Your task to perform on an android device: Search for a coffee table on IKEA Image 0: 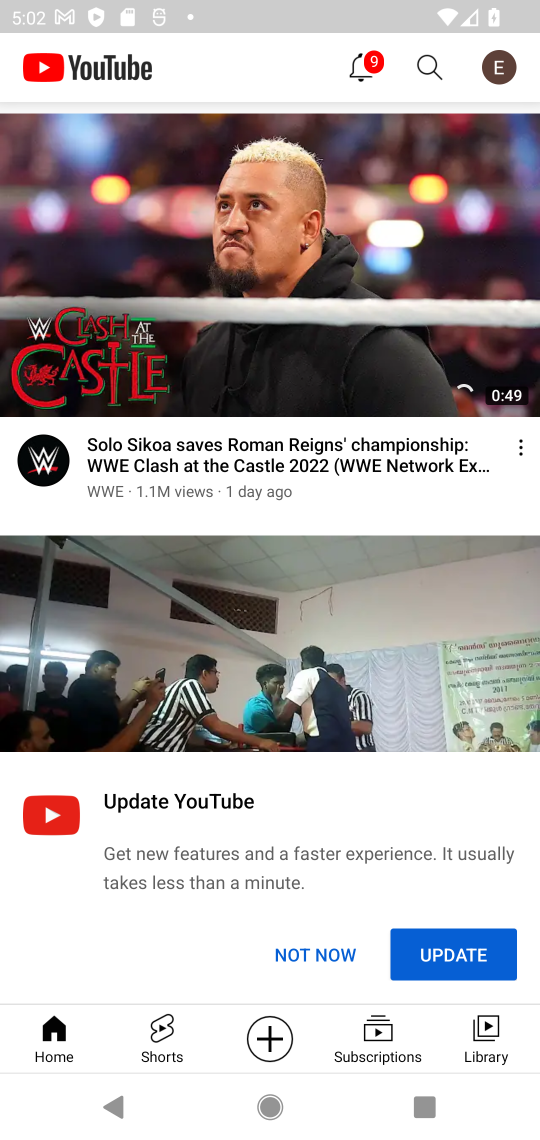
Step 0: press home button
Your task to perform on an android device: Search for a coffee table on IKEA Image 1: 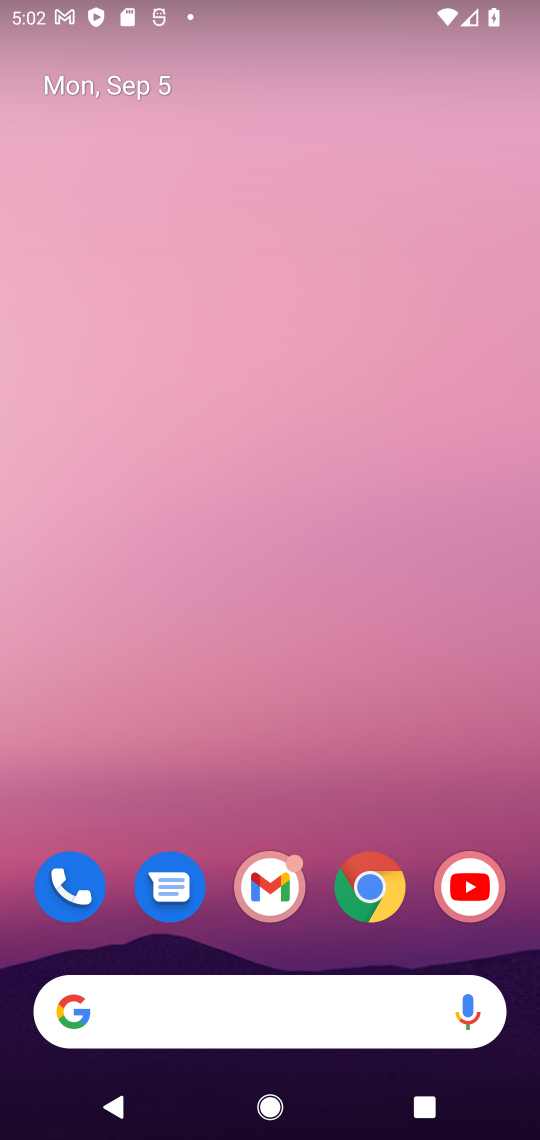
Step 1: drag from (310, 521) to (123, 1)
Your task to perform on an android device: Search for a coffee table on IKEA Image 2: 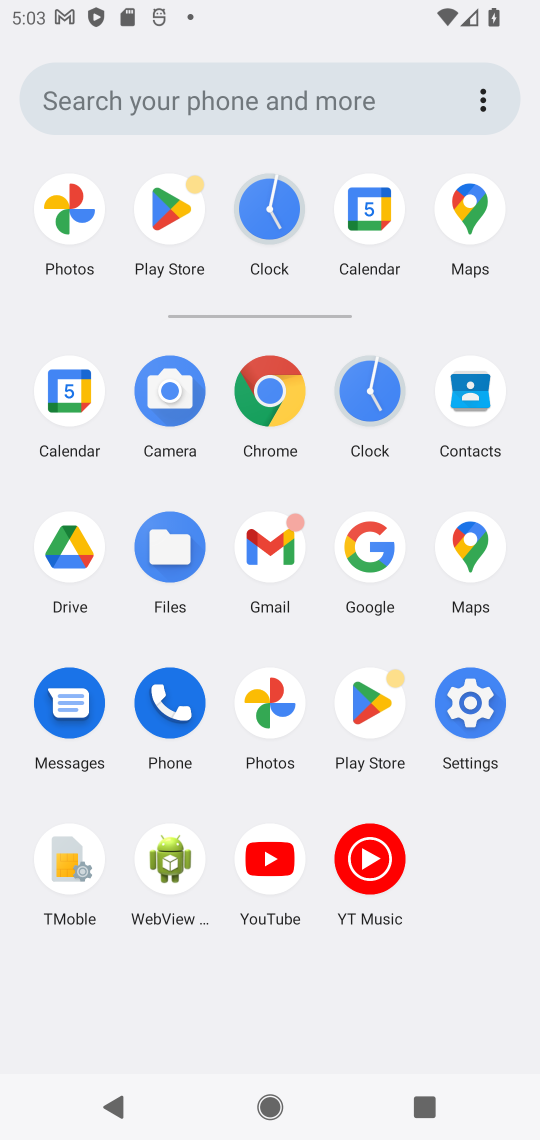
Step 2: click (264, 392)
Your task to perform on an android device: Search for a coffee table on IKEA Image 3: 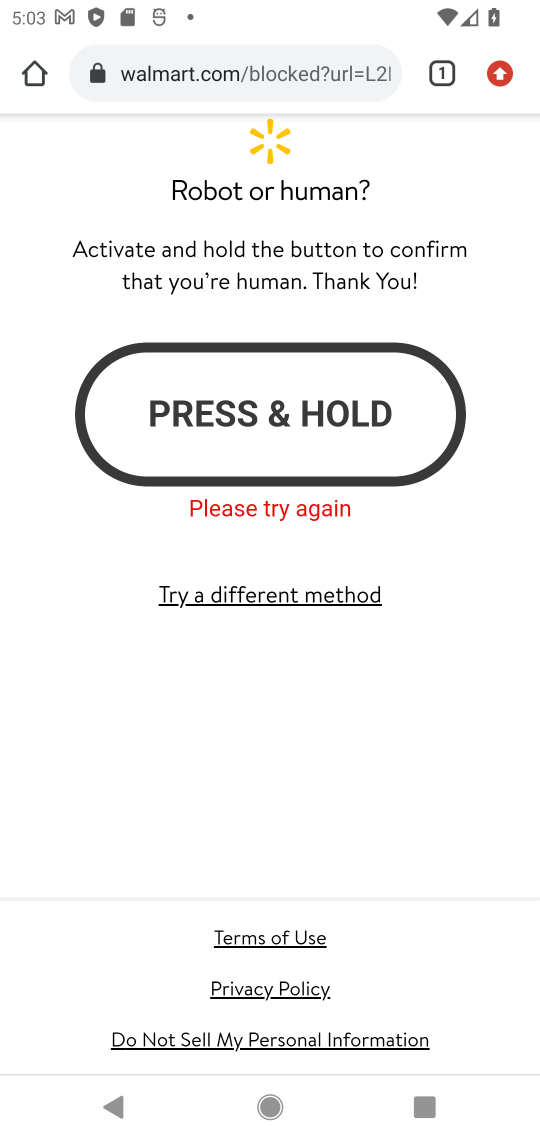
Step 3: click (331, 64)
Your task to perform on an android device: Search for a coffee table on IKEA Image 4: 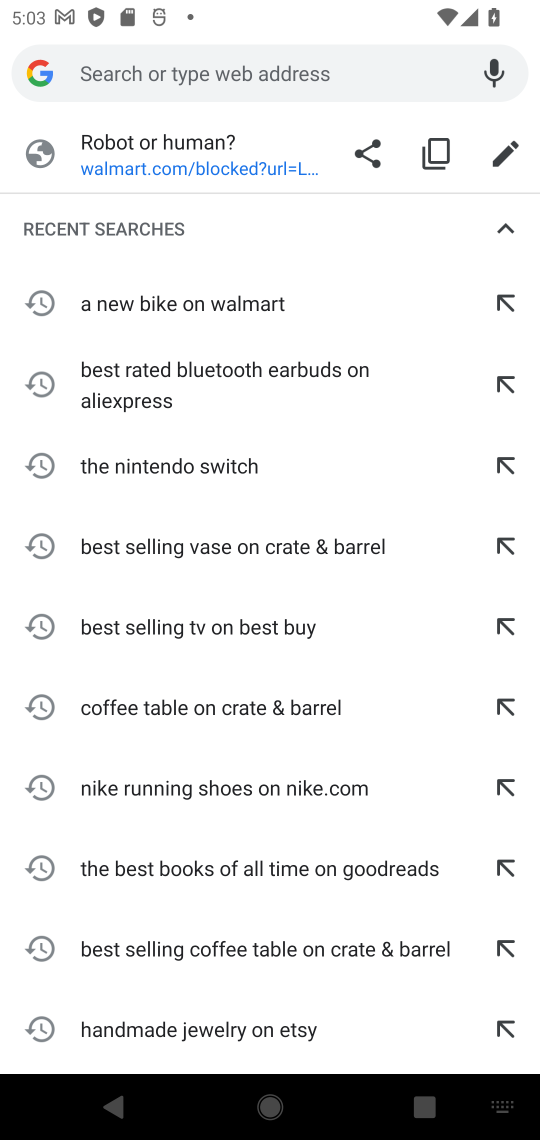
Step 4: type "coffee table on lKEA"
Your task to perform on an android device: Search for a coffee table on IKEA Image 5: 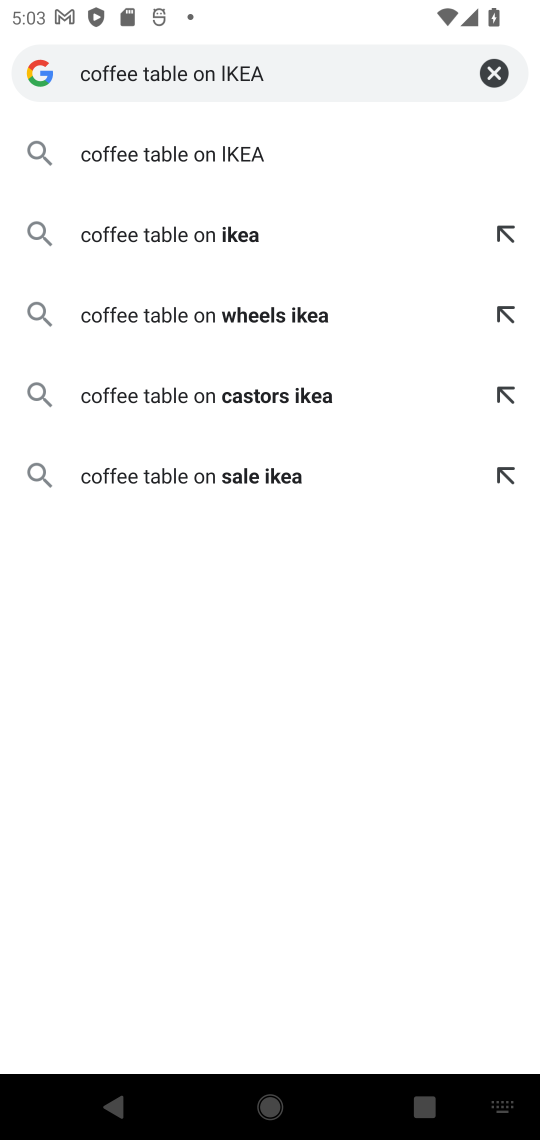
Step 5: press enter
Your task to perform on an android device: Search for a coffee table on IKEA Image 6: 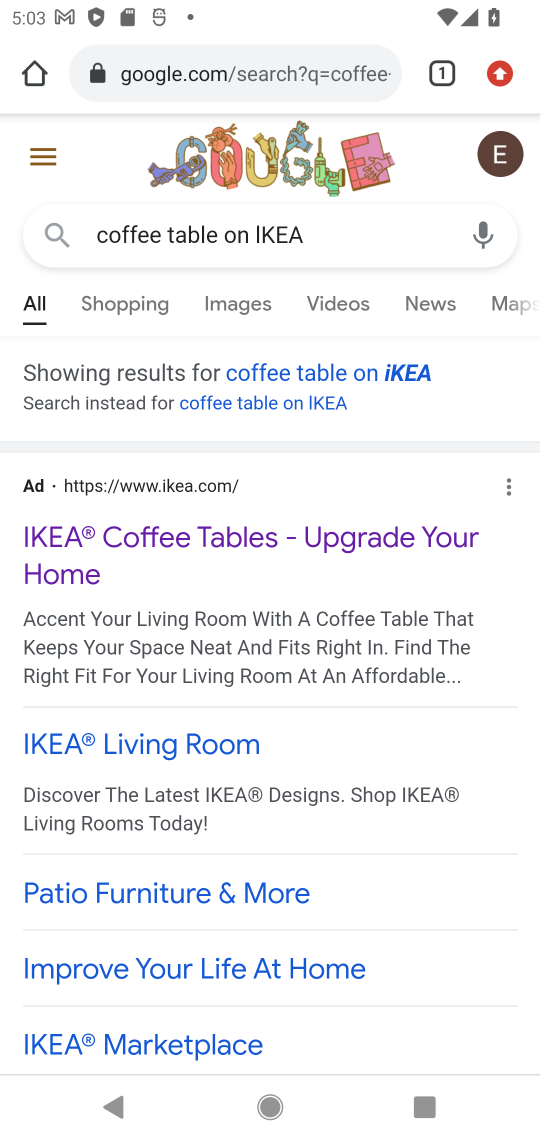
Step 6: drag from (336, 806) to (267, 94)
Your task to perform on an android device: Search for a coffee table on IKEA Image 7: 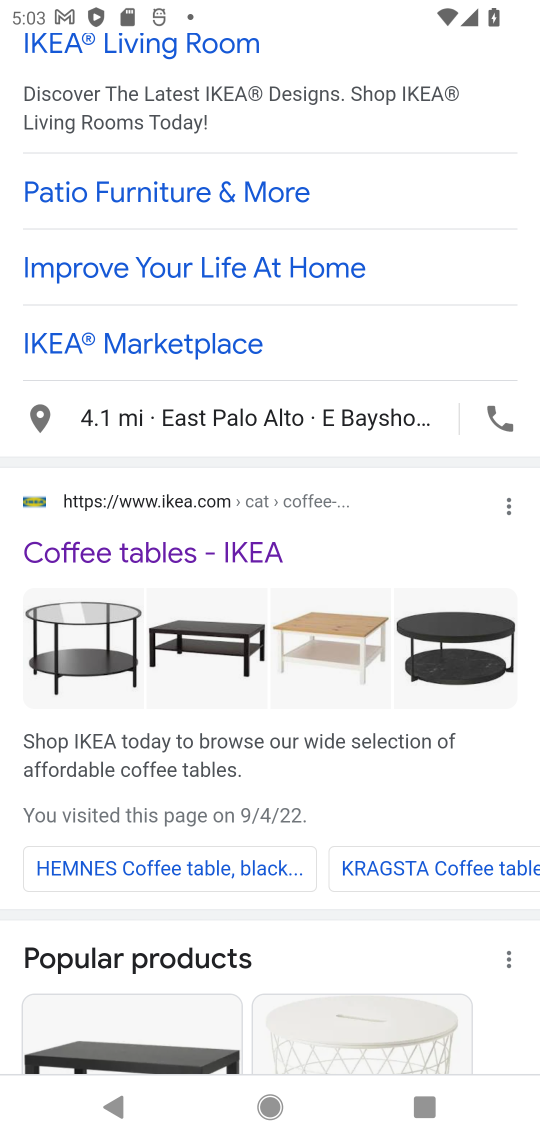
Step 7: click (205, 557)
Your task to perform on an android device: Search for a coffee table on IKEA Image 8: 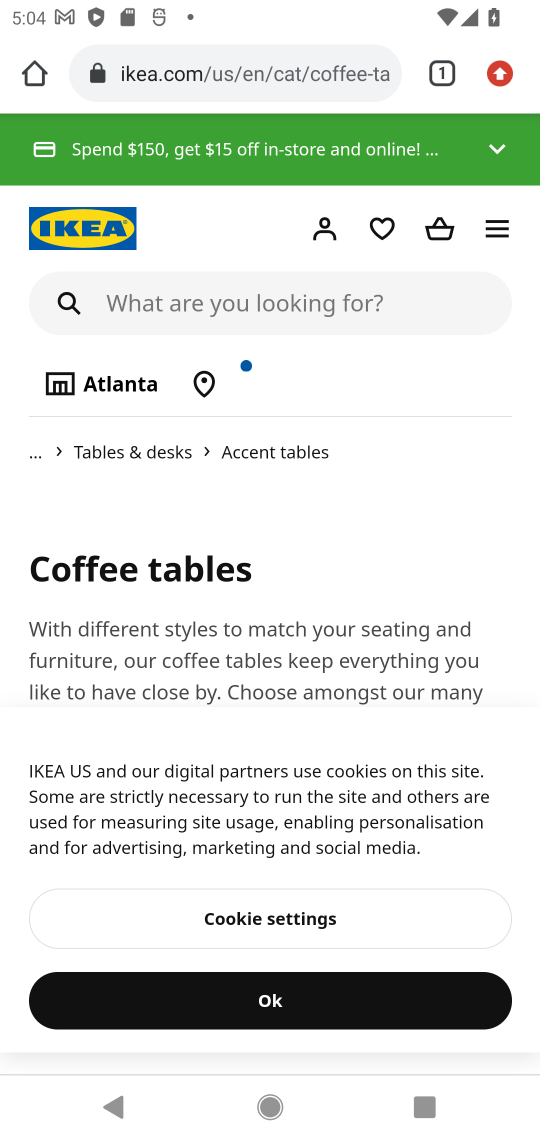
Step 8: drag from (275, 756) to (230, 0)
Your task to perform on an android device: Search for a coffee table on IKEA Image 9: 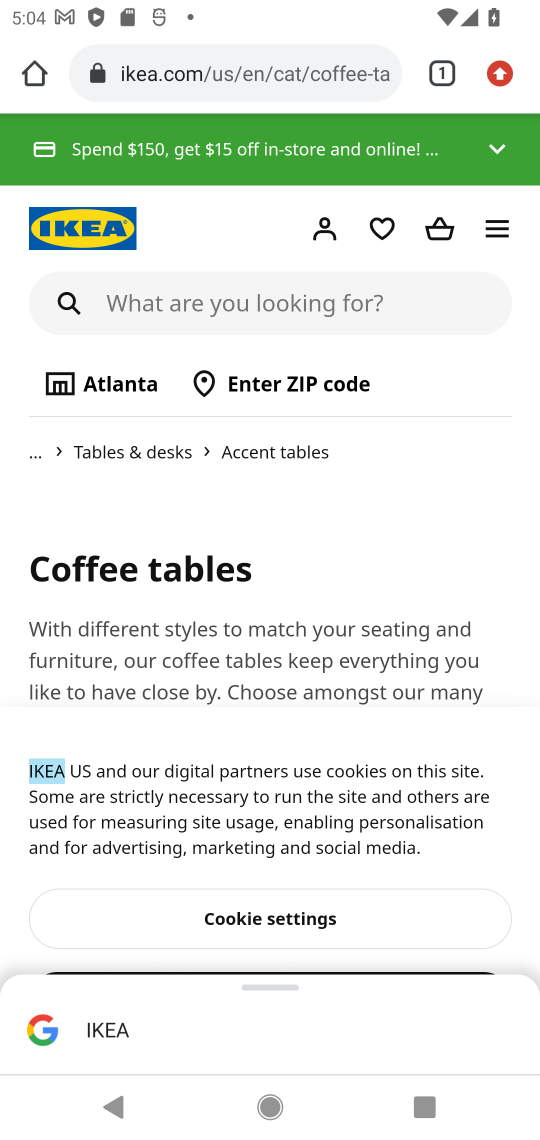
Step 9: click (330, 752)
Your task to perform on an android device: Search for a coffee table on IKEA Image 10: 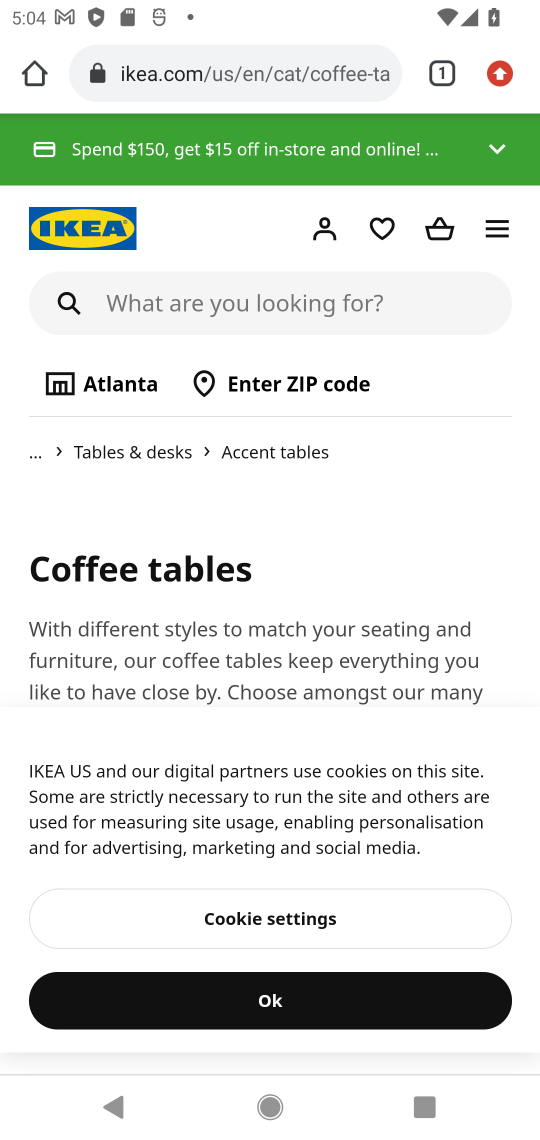
Step 10: task complete